Your task to perform on an android device: Show me popular games on the Play Store Image 0: 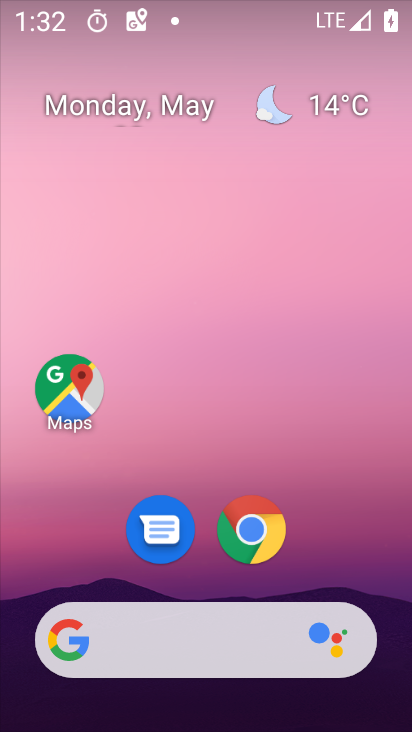
Step 0: drag from (385, 576) to (375, 213)
Your task to perform on an android device: Show me popular games on the Play Store Image 1: 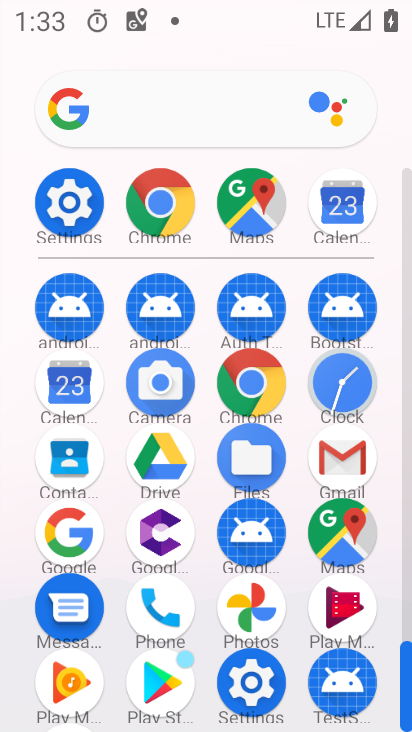
Step 1: click (168, 686)
Your task to perform on an android device: Show me popular games on the Play Store Image 2: 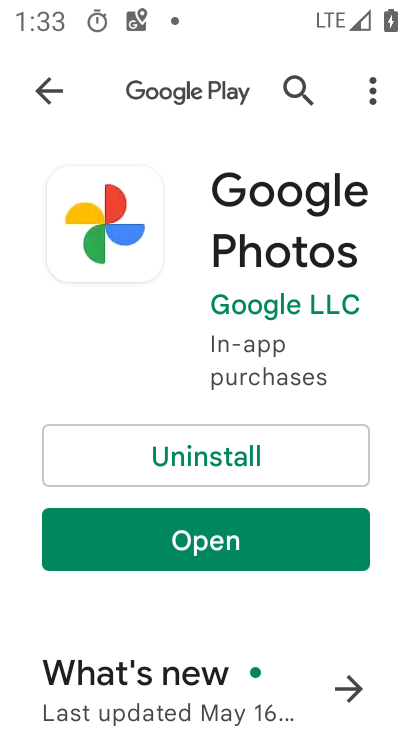
Step 2: click (58, 91)
Your task to perform on an android device: Show me popular games on the Play Store Image 3: 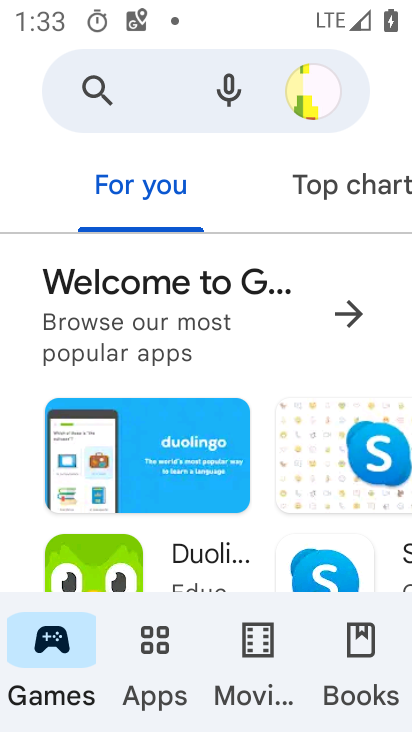
Step 3: task complete